Your task to perform on an android device: create a new album in the google photos Image 0: 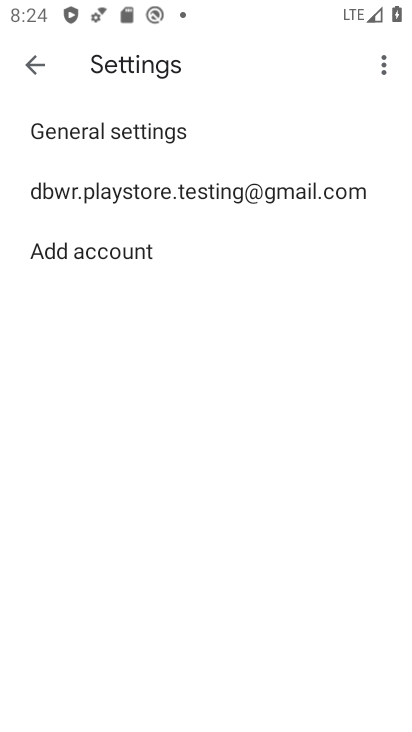
Step 0: press home button
Your task to perform on an android device: create a new album in the google photos Image 1: 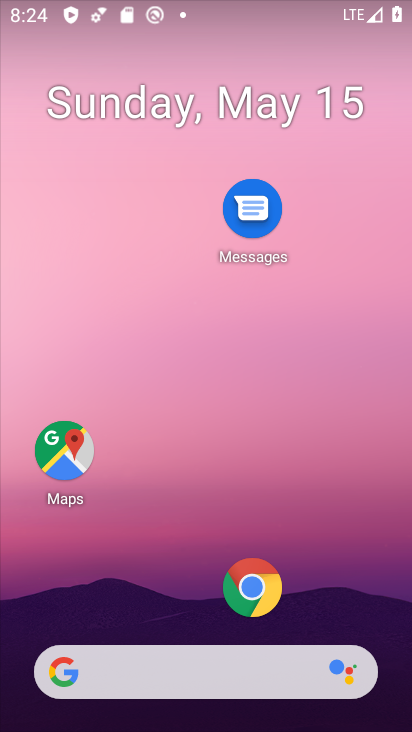
Step 1: drag from (180, 579) to (201, 142)
Your task to perform on an android device: create a new album in the google photos Image 2: 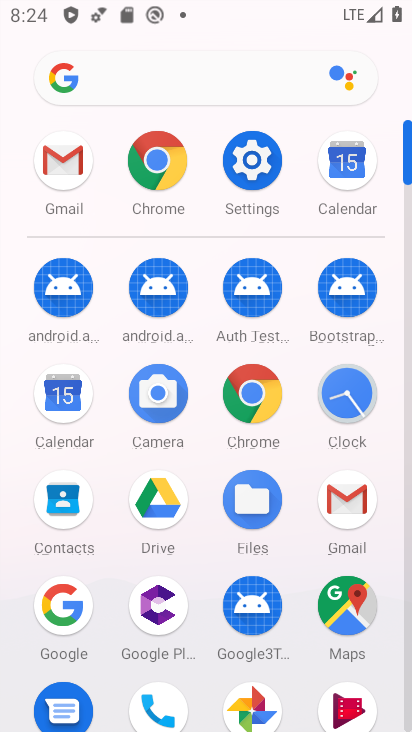
Step 2: click (248, 703)
Your task to perform on an android device: create a new album in the google photos Image 3: 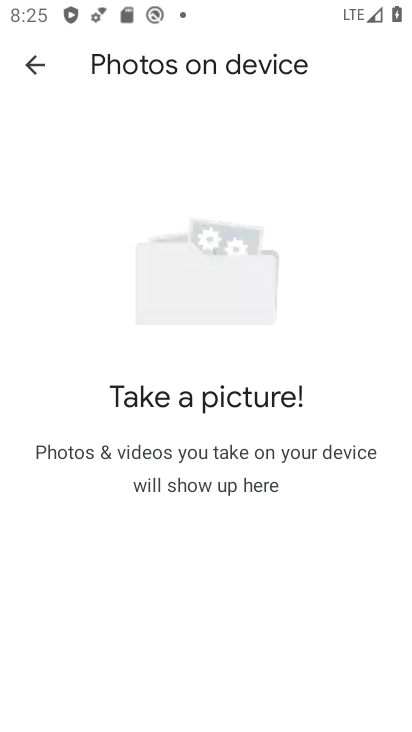
Step 3: click (27, 61)
Your task to perform on an android device: create a new album in the google photos Image 4: 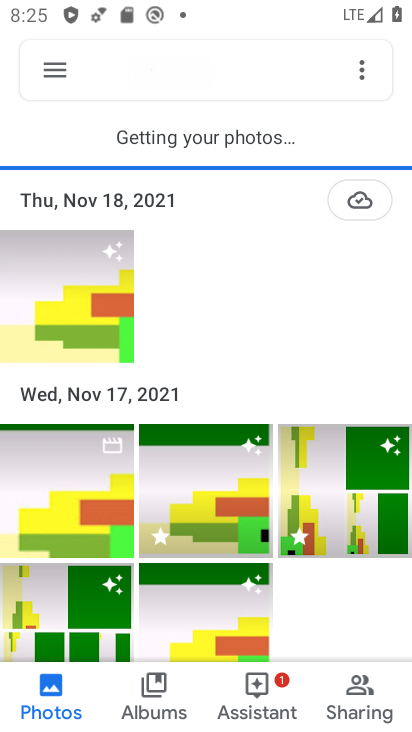
Step 4: click (365, 68)
Your task to perform on an android device: create a new album in the google photos Image 5: 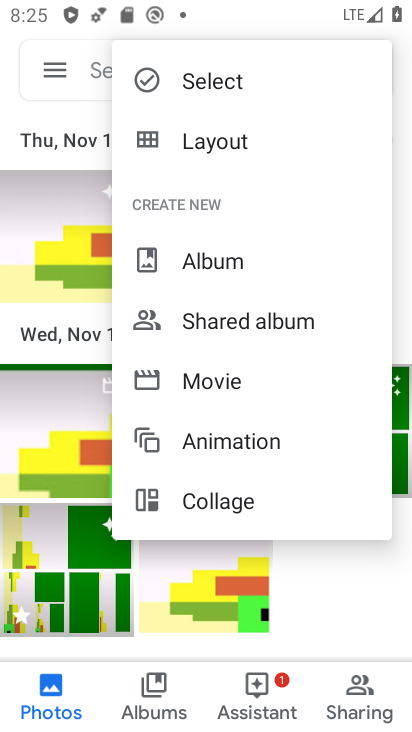
Step 5: click (162, 695)
Your task to perform on an android device: create a new album in the google photos Image 6: 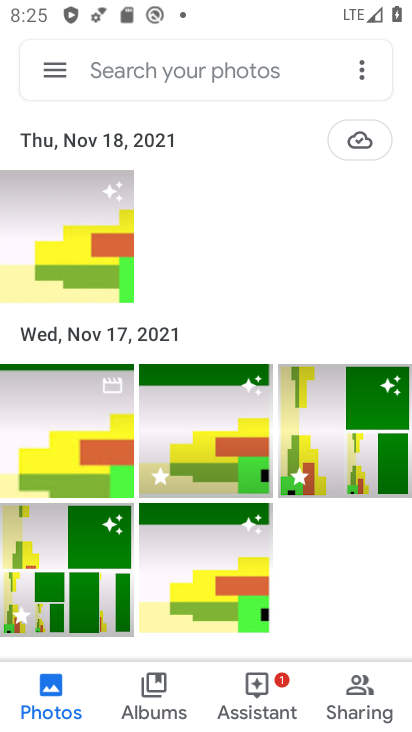
Step 6: click (151, 697)
Your task to perform on an android device: create a new album in the google photos Image 7: 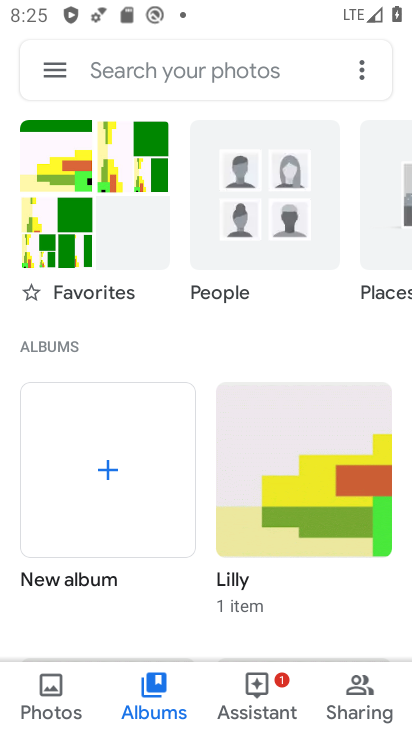
Step 7: click (111, 465)
Your task to perform on an android device: create a new album in the google photos Image 8: 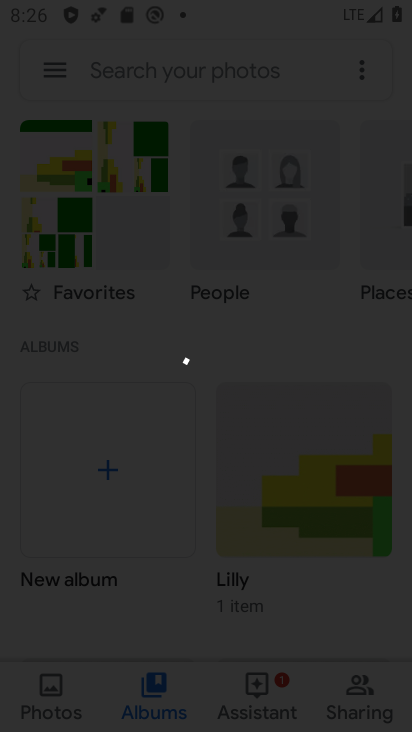
Step 8: task complete